Your task to perform on an android device: show emergency info Image 0: 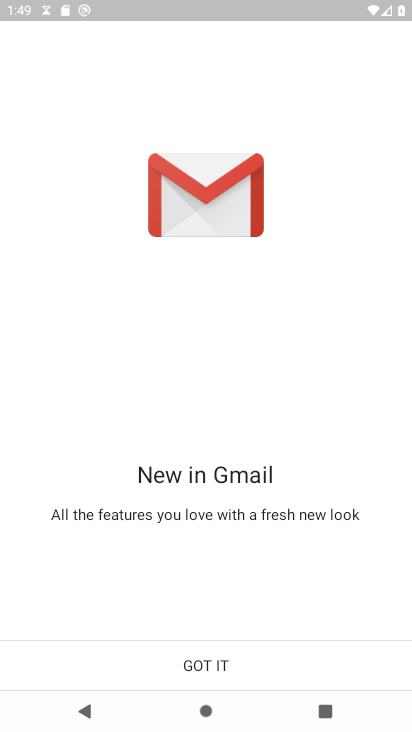
Step 0: press home button
Your task to perform on an android device: show emergency info Image 1: 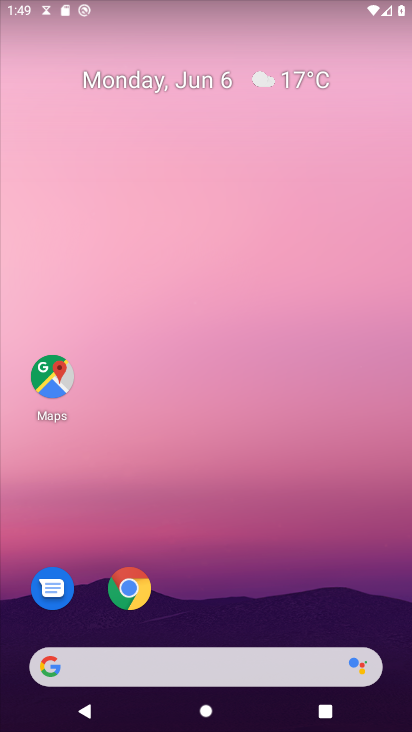
Step 1: drag from (215, 620) to (217, 10)
Your task to perform on an android device: show emergency info Image 2: 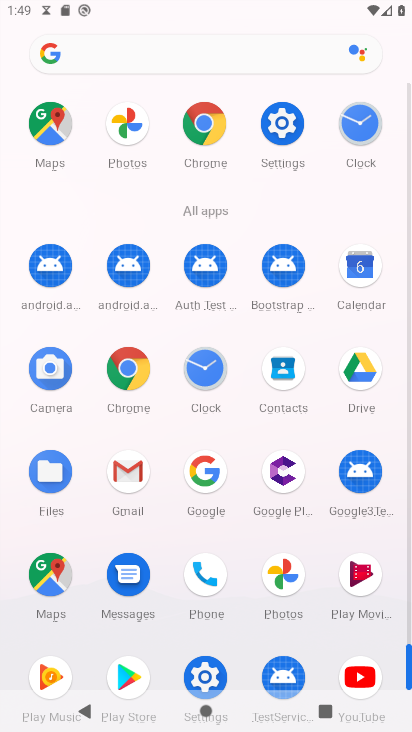
Step 2: click (284, 130)
Your task to perform on an android device: show emergency info Image 3: 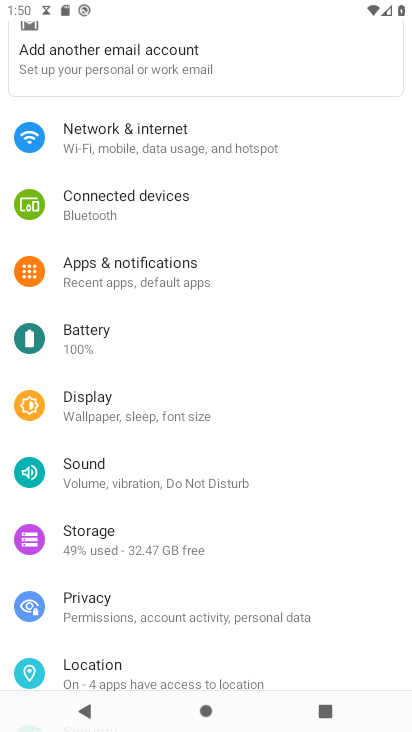
Step 3: click (123, 144)
Your task to perform on an android device: show emergency info Image 4: 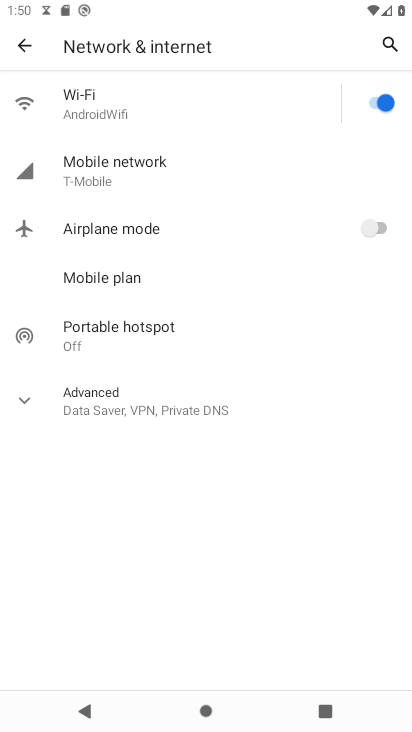
Step 4: press back button
Your task to perform on an android device: show emergency info Image 5: 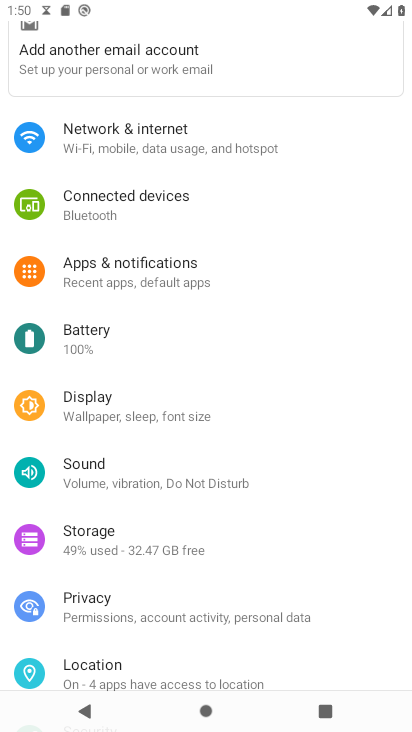
Step 5: drag from (123, 649) to (175, 205)
Your task to perform on an android device: show emergency info Image 6: 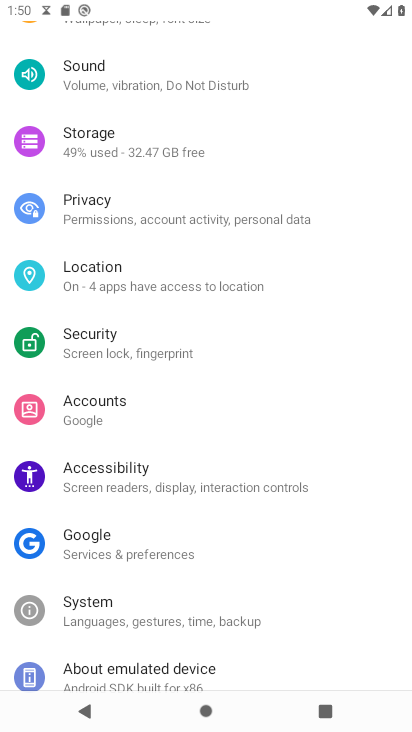
Step 6: drag from (120, 625) to (174, 361)
Your task to perform on an android device: show emergency info Image 7: 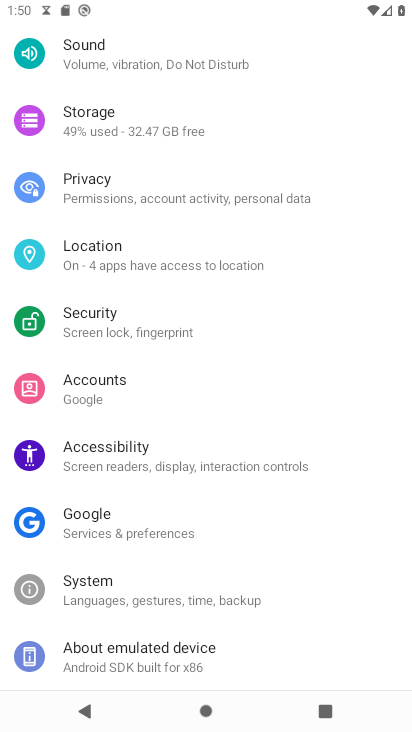
Step 7: click (161, 673)
Your task to perform on an android device: show emergency info Image 8: 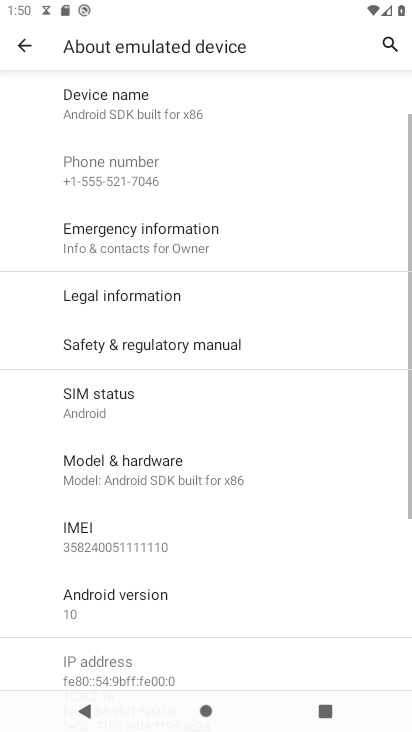
Step 8: drag from (111, 633) to (150, 503)
Your task to perform on an android device: show emergency info Image 9: 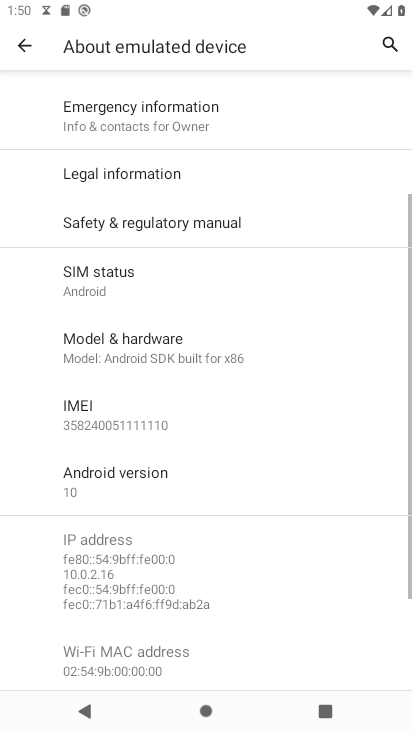
Step 9: click (123, 497)
Your task to perform on an android device: show emergency info Image 10: 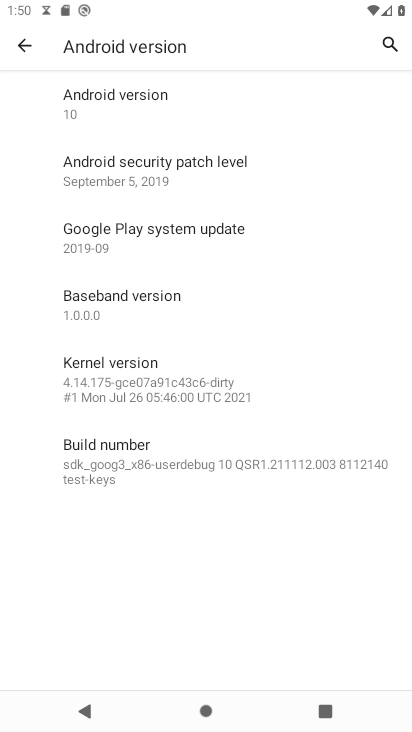
Step 10: task complete